Your task to perform on an android device: turn off sleep mode Image 0: 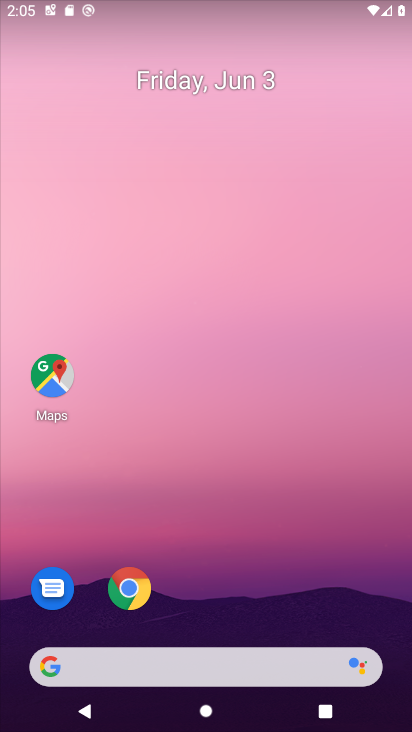
Step 0: drag from (219, 515) to (232, 208)
Your task to perform on an android device: turn off sleep mode Image 1: 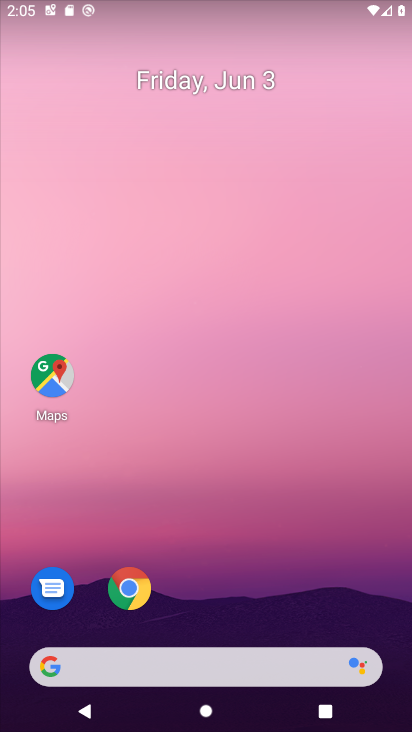
Step 1: drag from (205, 560) to (168, 144)
Your task to perform on an android device: turn off sleep mode Image 2: 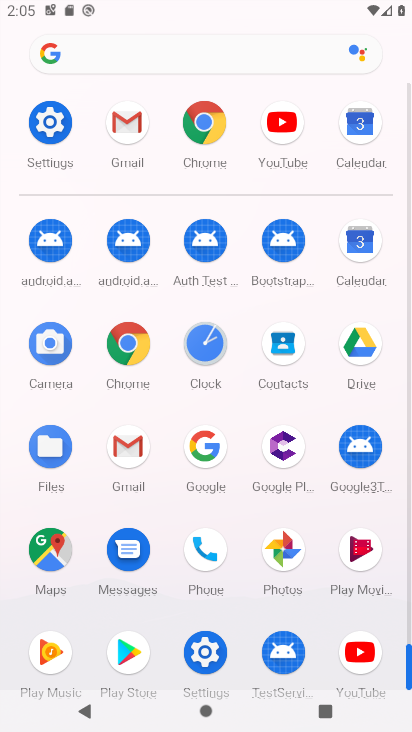
Step 2: click (50, 126)
Your task to perform on an android device: turn off sleep mode Image 3: 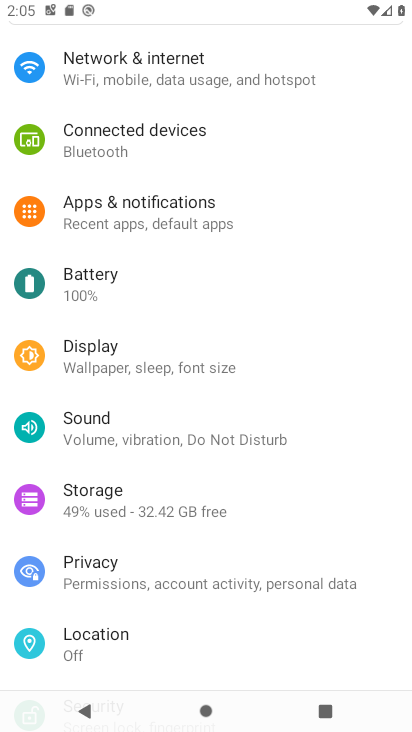
Step 3: click (110, 372)
Your task to perform on an android device: turn off sleep mode Image 4: 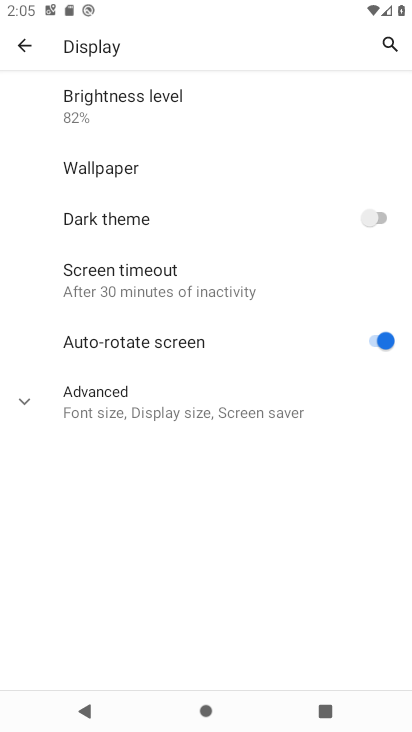
Step 4: click (111, 427)
Your task to perform on an android device: turn off sleep mode Image 5: 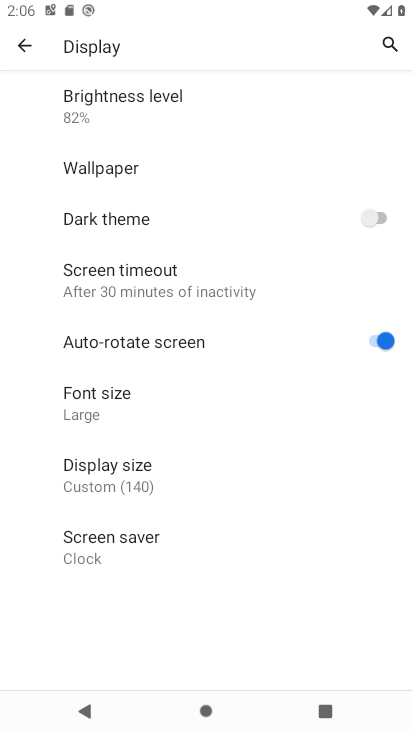
Step 5: task complete